Your task to perform on an android device: Open Chrome and go to settings Image 0: 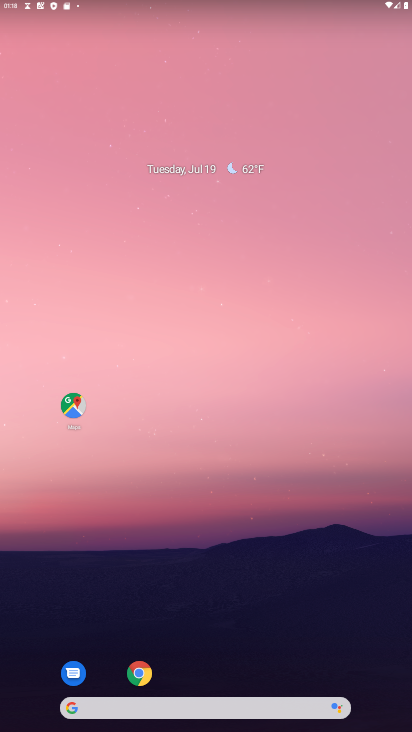
Step 0: drag from (244, 664) to (233, 372)
Your task to perform on an android device: Open Chrome and go to settings Image 1: 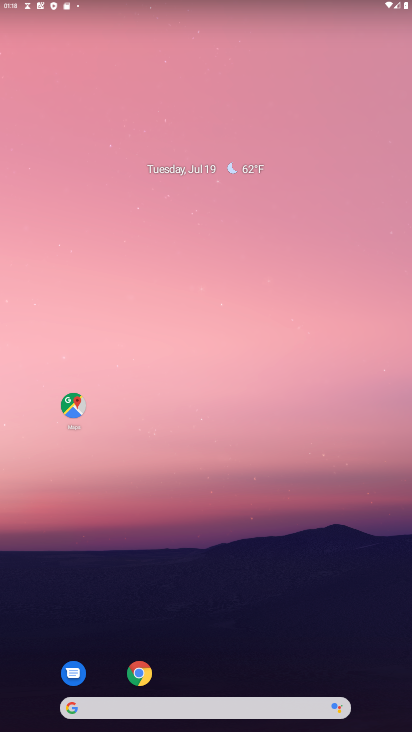
Step 1: click (239, 261)
Your task to perform on an android device: Open Chrome and go to settings Image 2: 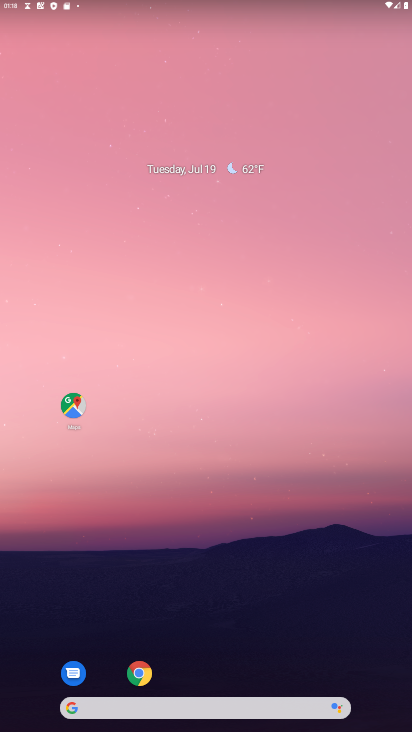
Step 2: drag from (212, 654) to (216, 307)
Your task to perform on an android device: Open Chrome and go to settings Image 3: 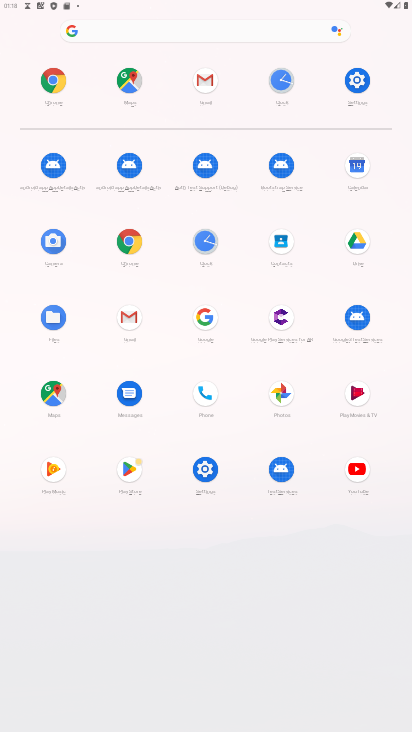
Step 3: click (53, 70)
Your task to perform on an android device: Open Chrome and go to settings Image 4: 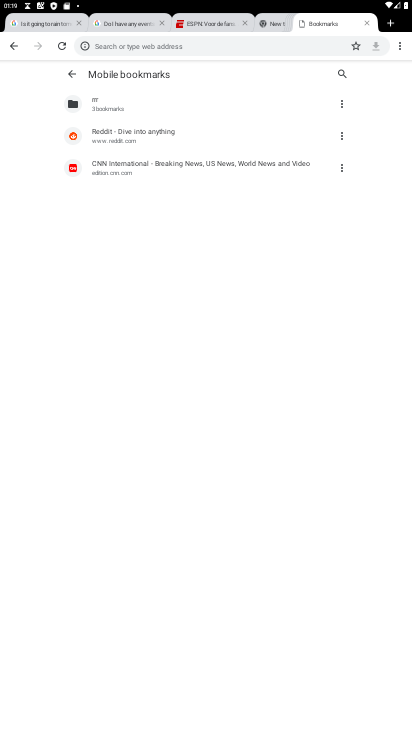
Step 4: click (405, 43)
Your task to perform on an android device: Open Chrome and go to settings Image 5: 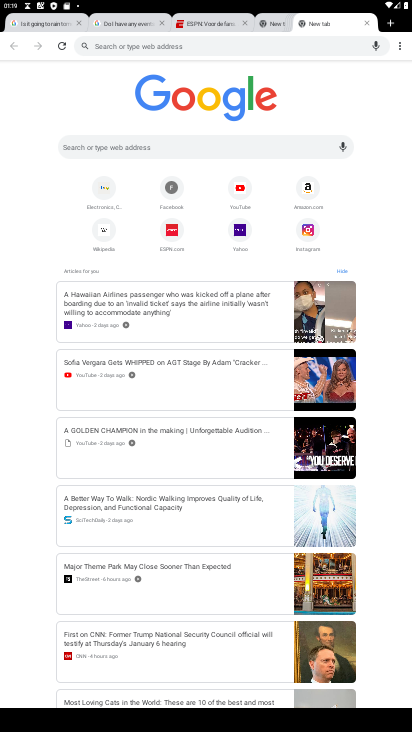
Step 5: click (407, 48)
Your task to perform on an android device: Open Chrome and go to settings Image 6: 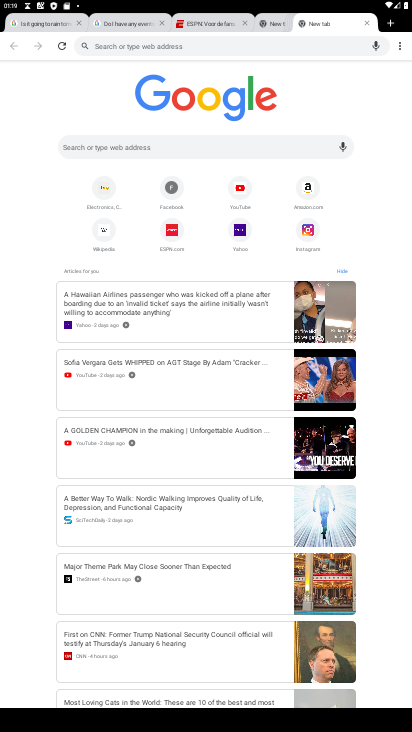
Step 6: click (398, 37)
Your task to perform on an android device: Open Chrome and go to settings Image 7: 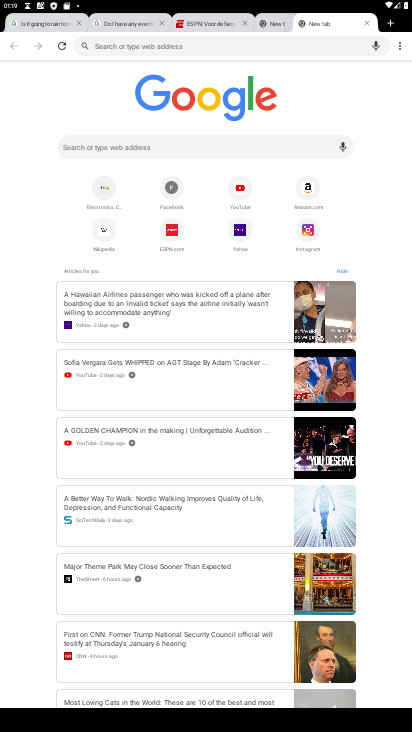
Step 7: click (401, 46)
Your task to perform on an android device: Open Chrome and go to settings Image 8: 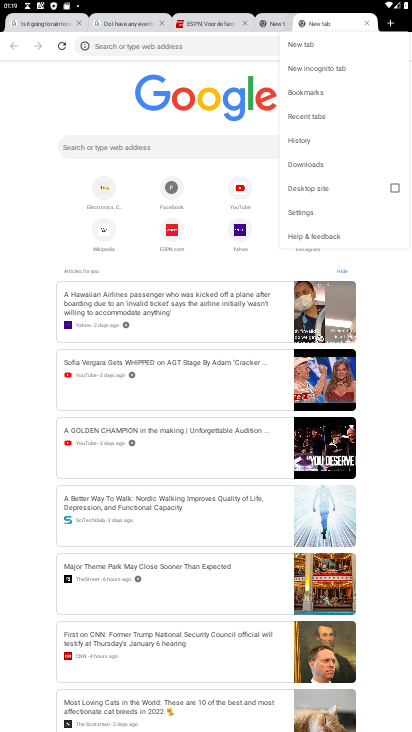
Step 8: click (323, 213)
Your task to perform on an android device: Open Chrome and go to settings Image 9: 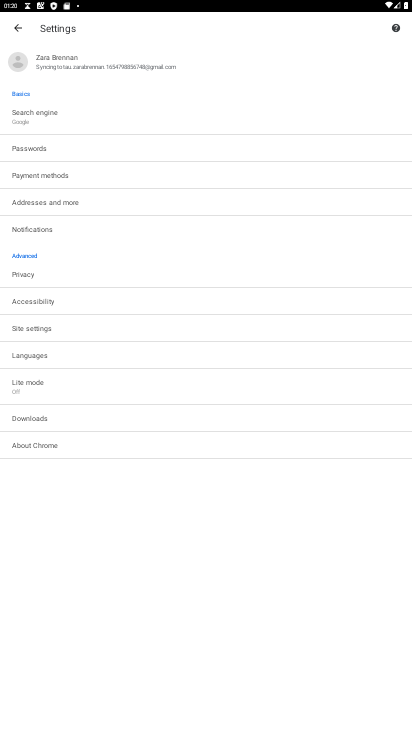
Step 9: task complete